Your task to perform on an android device: create a new album in the google photos Image 0: 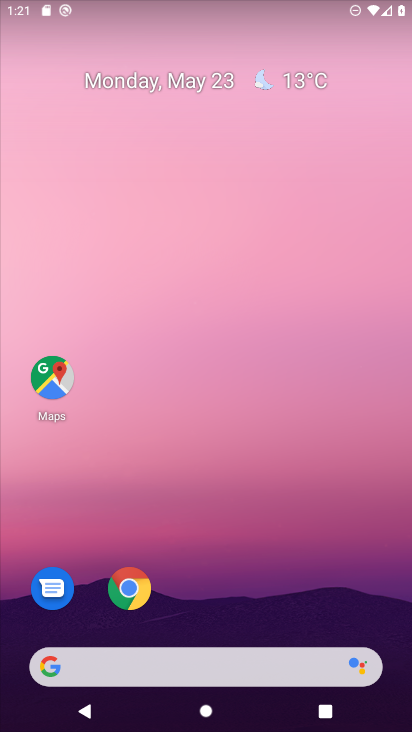
Step 0: drag from (214, 649) to (325, 60)
Your task to perform on an android device: create a new album in the google photos Image 1: 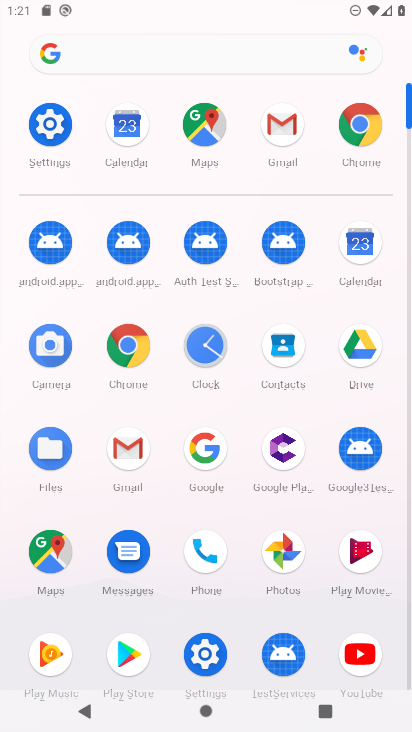
Step 1: click (282, 553)
Your task to perform on an android device: create a new album in the google photos Image 2: 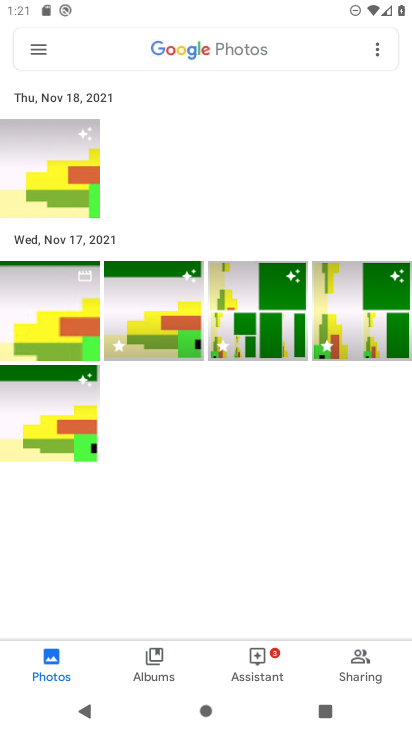
Step 2: click (148, 656)
Your task to perform on an android device: create a new album in the google photos Image 3: 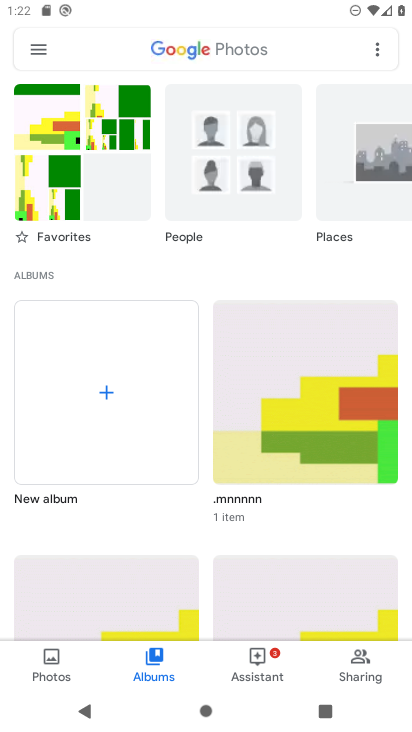
Step 3: click (103, 400)
Your task to perform on an android device: create a new album in the google photos Image 4: 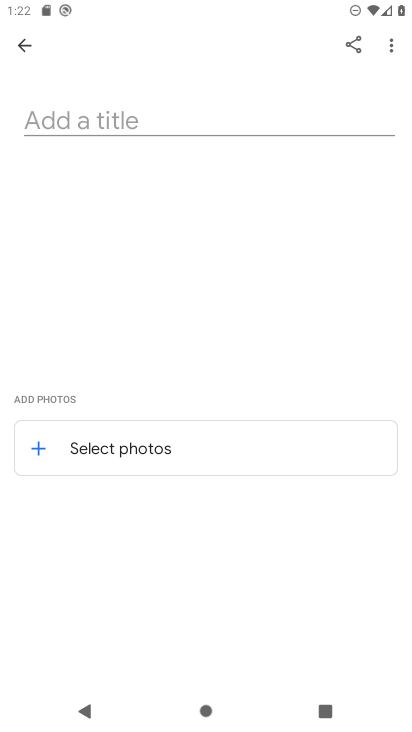
Step 4: click (124, 116)
Your task to perform on an android device: create a new album in the google photos Image 5: 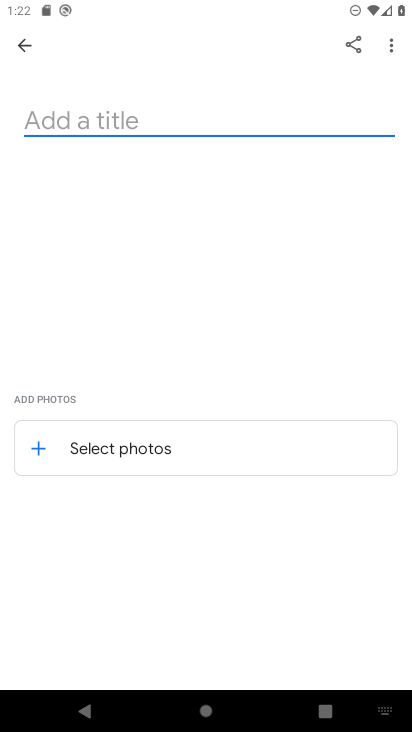
Step 5: type "album 08"
Your task to perform on an android device: create a new album in the google photos Image 6: 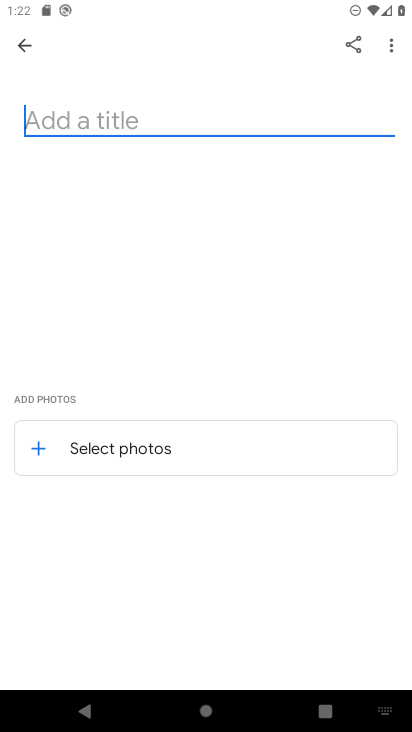
Step 6: click (95, 444)
Your task to perform on an android device: create a new album in the google photos Image 7: 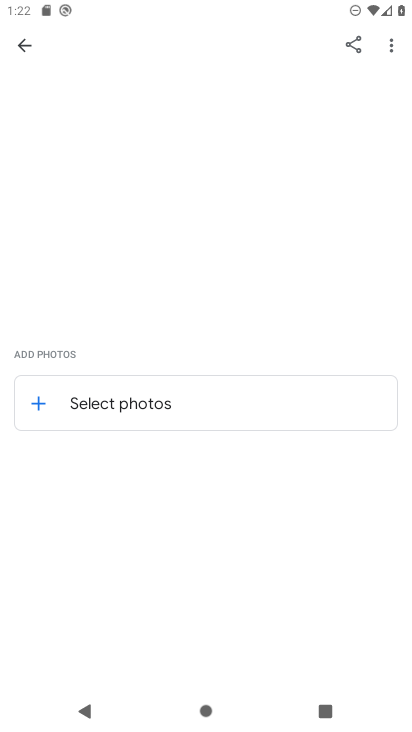
Step 7: click (107, 407)
Your task to perform on an android device: create a new album in the google photos Image 8: 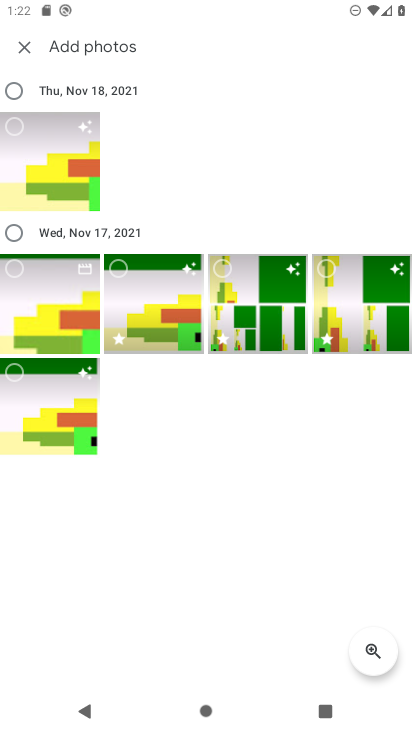
Step 8: click (10, 86)
Your task to perform on an android device: create a new album in the google photos Image 9: 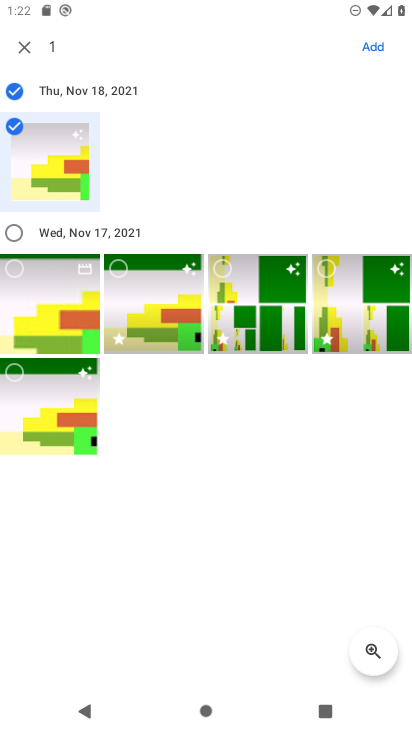
Step 9: click (12, 234)
Your task to perform on an android device: create a new album in the google photos Image 10: 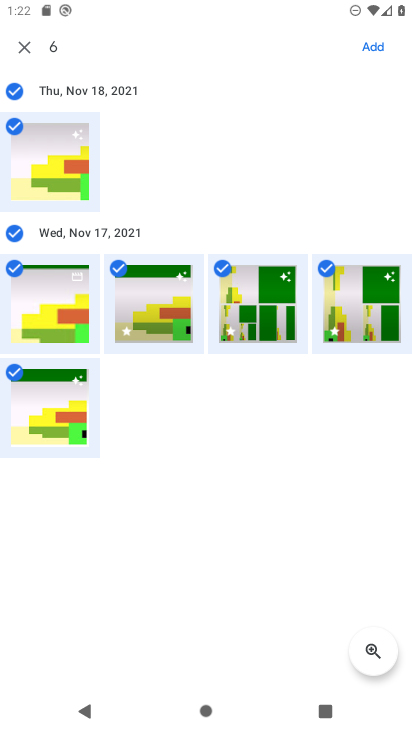
Step 10: click (370, 52)
Your task to perform on an android device: create a new album in the google photos Image 11: 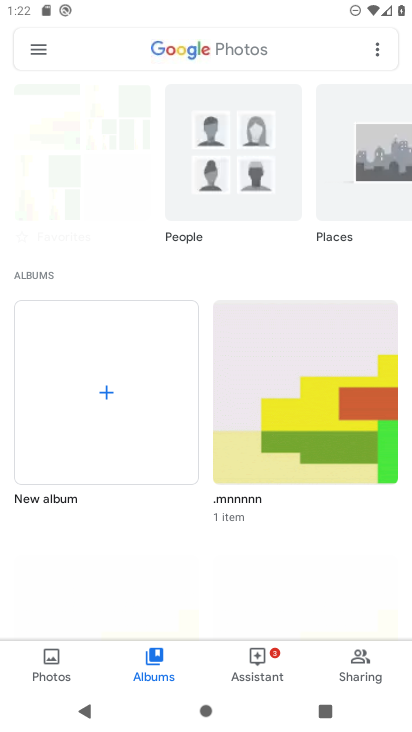
Step 11: task complete